Your task to perform on an android device: toggle priority inbox in the gmail app Image 0: 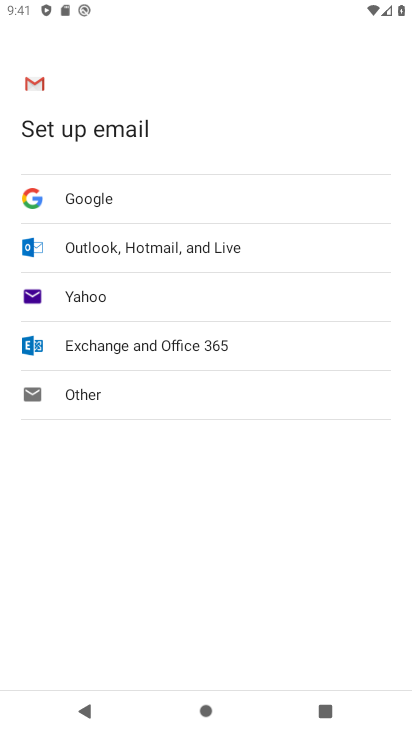
Step 0: press home button
Your task to perform on an android device: toggle priority inbox in the gmail app Image 1: 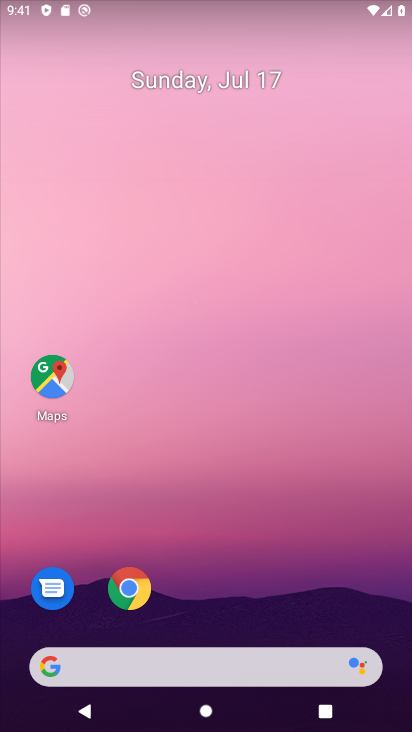
Step 1: drag from (198, 605) to (160, 53)
Your task to perform on an android device: toggle priority inbox in the gmail app Image 2: 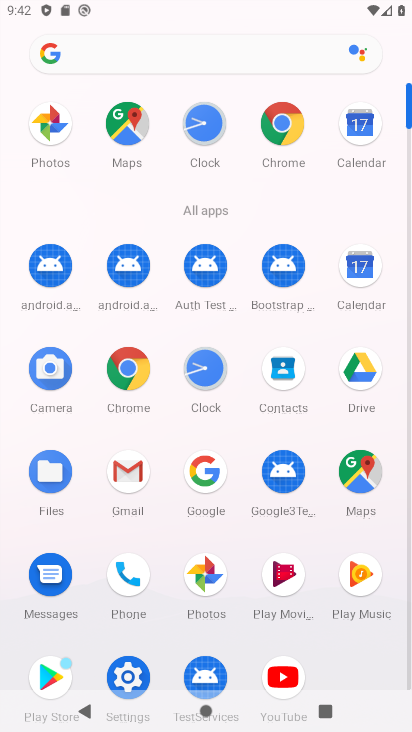
Step 2: click (118, 472)
Your task to perform on an android device: toggle priority inbox in the gmail app Image 3: 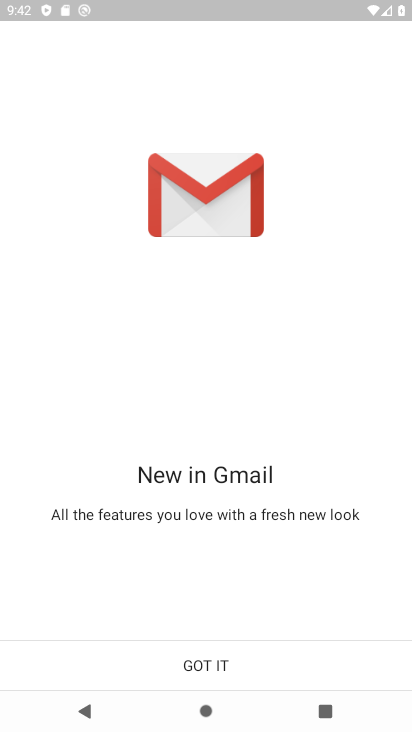
Step 3: click (229, 665)
Your task to perform on an android device: toggle priority inbox in the gmail app Image 4: 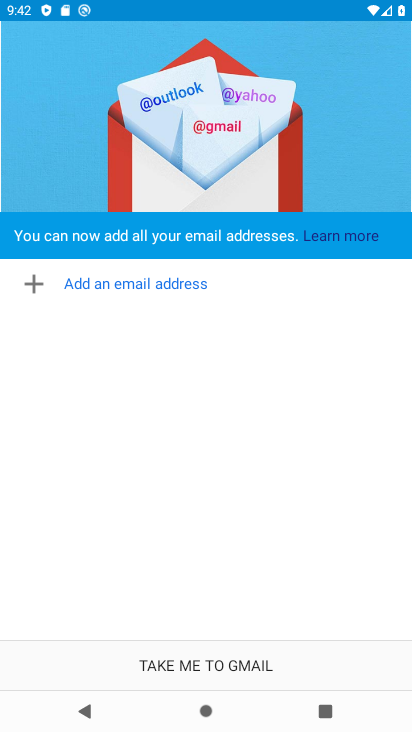
Step 4: task complete